Your task to perform on an android device: star an email in the gmail app Image 0: 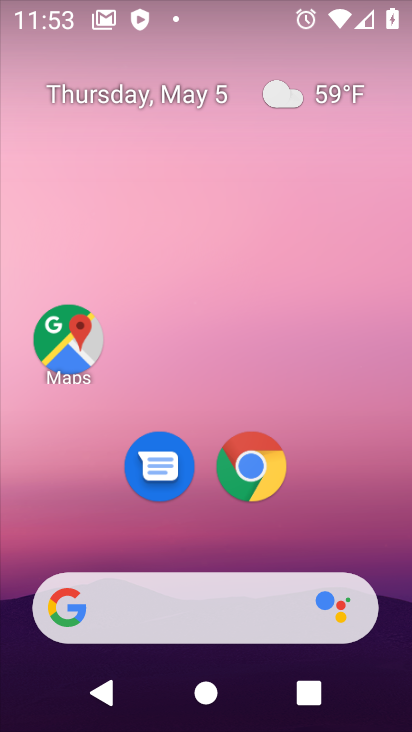
Step 0: drag from (179, 562) to (187, 198)
Your task to perform on an android device: star an email in the gmail app Image 1: 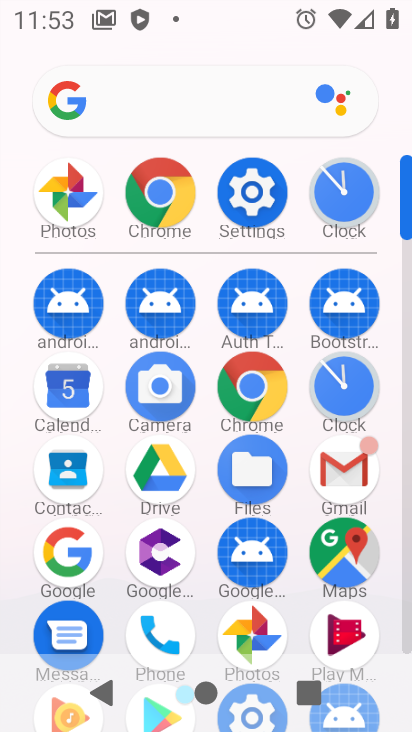
Step 1: click (351, 474)
Your task to perform on an android device: star an email in the gmail app Image 2: 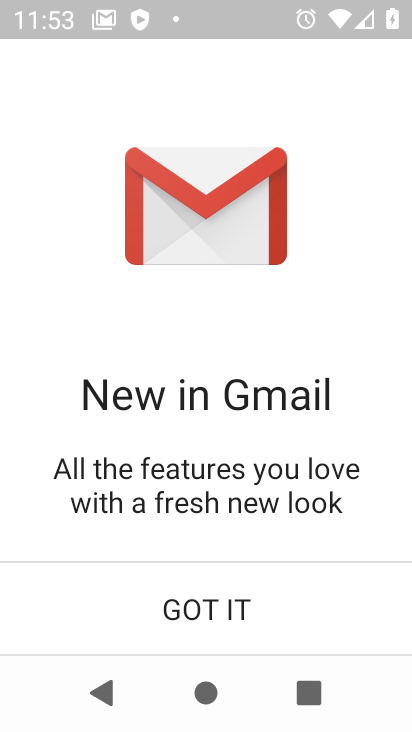
Step 2: click (212, 597)
Your task to perform on an android device: star an email in the gmail app Image 3: 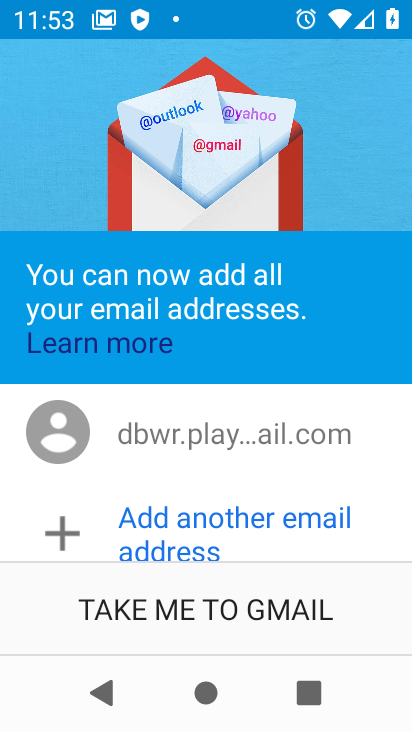
Step 3: click (214, 599)
Your task to perform on an android device: star an email in the gmail app Image 4: 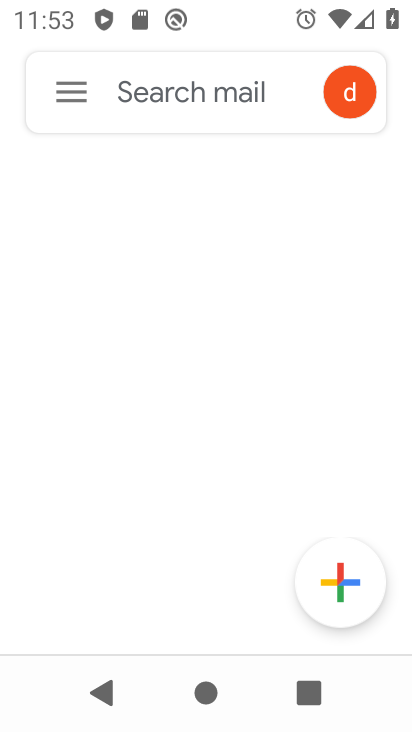
Step 4: click (220, 572)
Your task to perform on an android device: star an email in the gmail app Image 5: 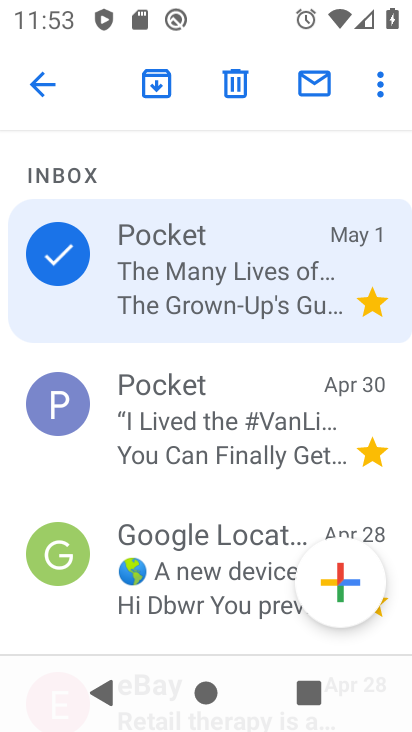
Step 5: drag from (197, 506) to (220, 222)
Your task to perform on an android device: star an email in the gmail app Image 6: 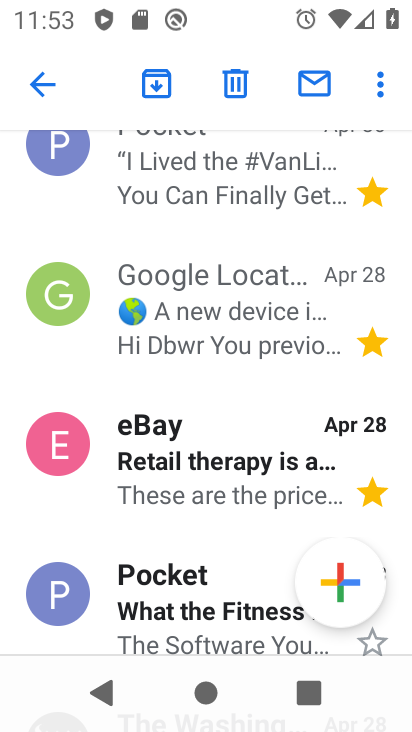
Step 6: drag from (143, 575) to (198, 233)
Your task to perform on an android device: star an email in the gmail app Image 7: 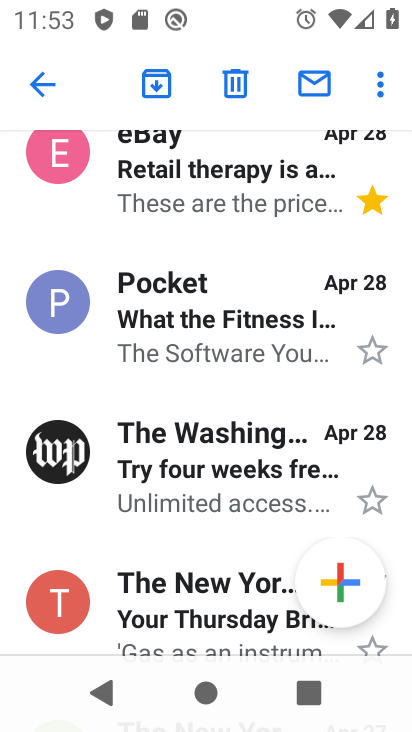
Step 7: click (364, 358)
Your task to perform on an android device: star an email in the gmail app Image 8: 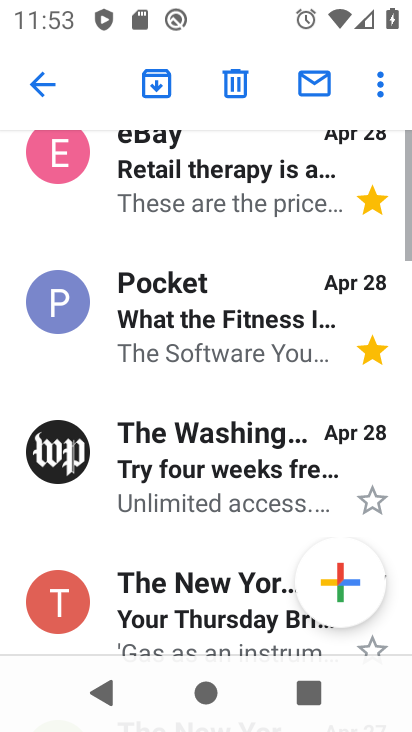
Step 8: task complete